Your task to perform on an android device: all mails in gmail Image 0: 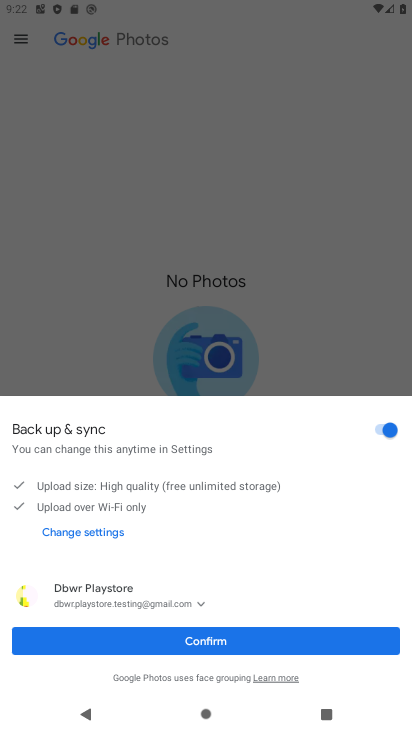
Step 0: press home button
Your task to perform on an android device: all mails in gmail Image 1: 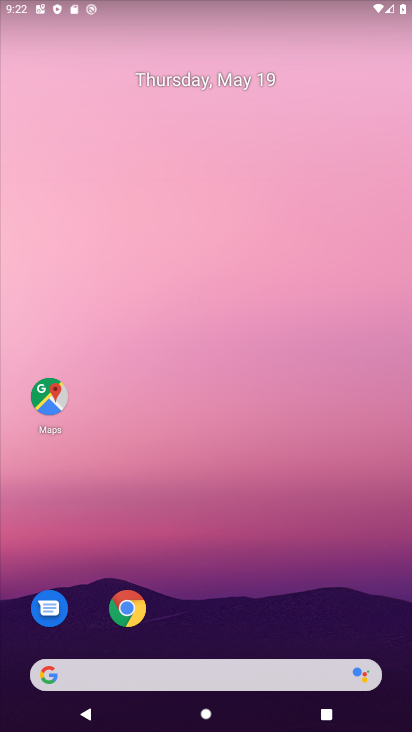
Step 1: drag from (225, 476) to (288, 130)
Your task to perform on an android device: all mails in gmail Image 2: 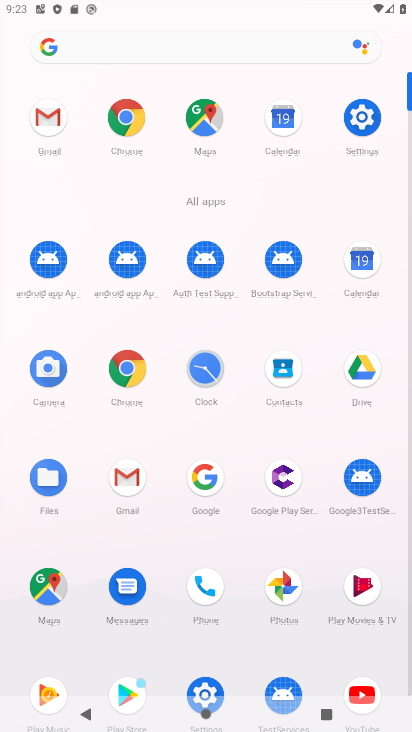
Step 2: click (49, 120)
Your task to perform on an android device: all mails in gmail Image 3: 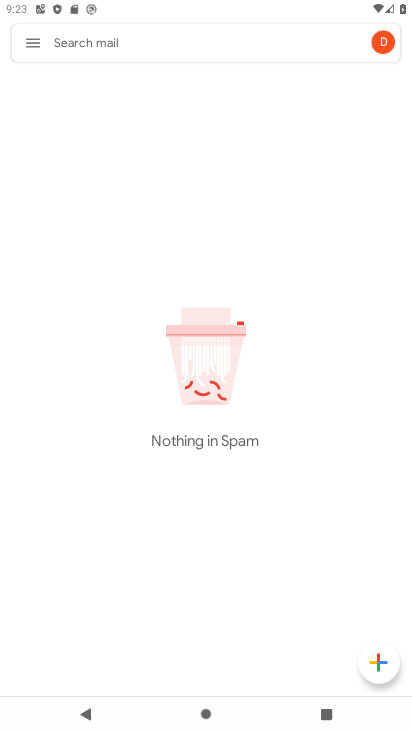
Step 3: click (25, 45)
Your task to perform on an android device: all mails in gmail Image 4: 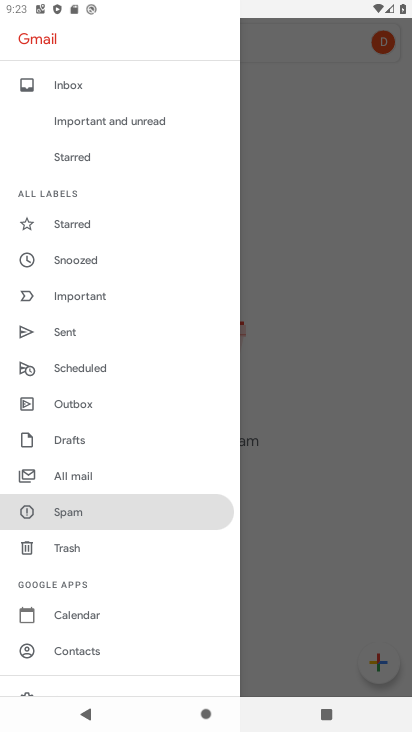
Step 4: click (80, 473)
Your task to perform on an android device: all mails in gmail Image 5: 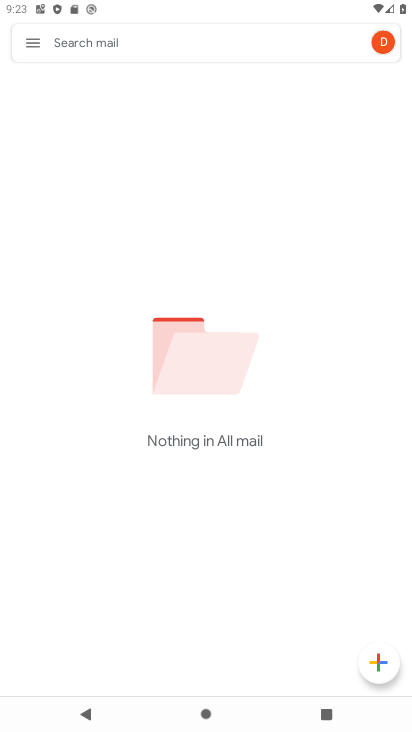
Step 5: task complete